Your task to perform on an android device: Open Amazon Image 0: 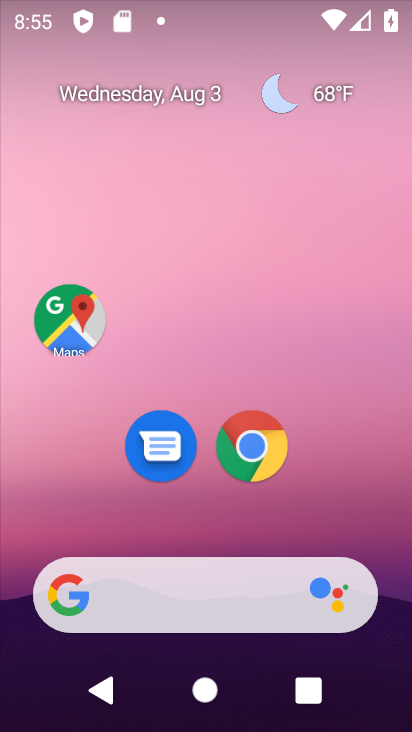
Step 0: click (251, 450)
Your task to perform on an android device: Open Amazon Image 1: 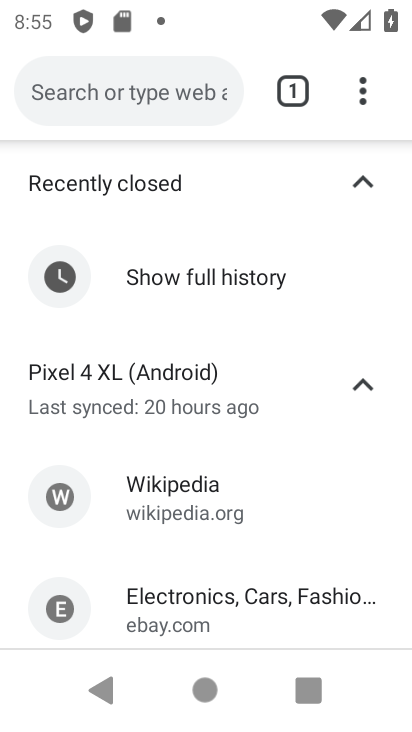
Step 1: click (178, 88)
Your task to perform on an android device: Open Amazon Image 2: 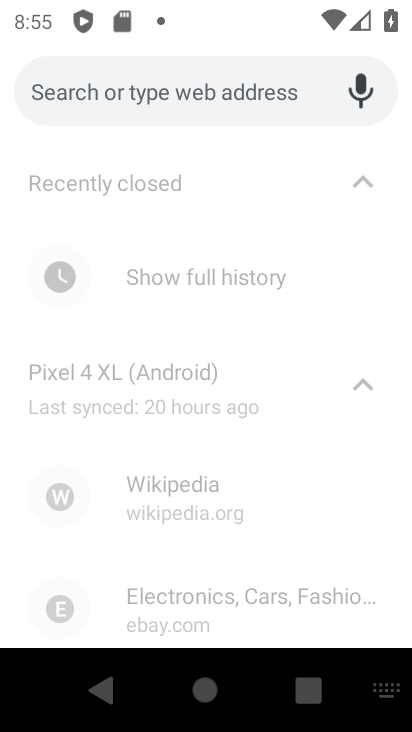
Step 2: type "Amazon"
Your task to perform on an android device: Open Amazon Image 3: 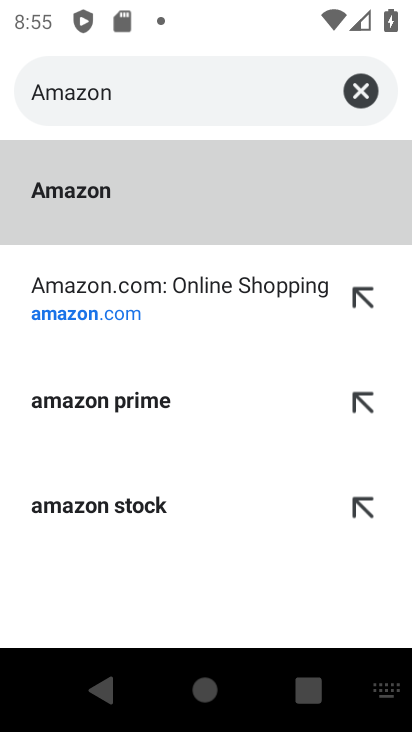
Step 3: click (78, 185)
Your task to perform on an android device: Open Amazon Image 4: 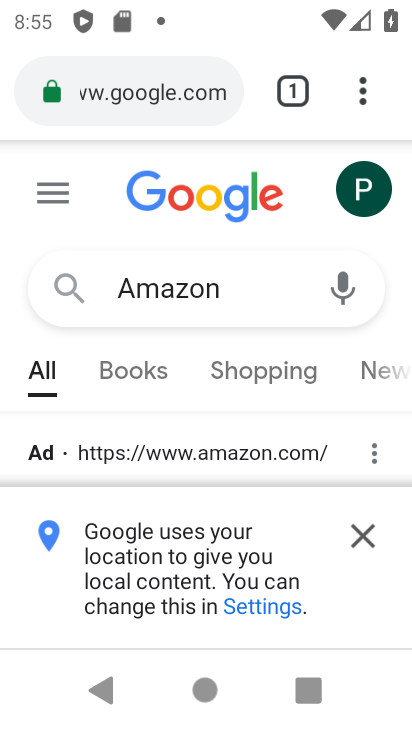
Step 4: task complete